Your task to perform on an android device: Open privacy settings Image 0: 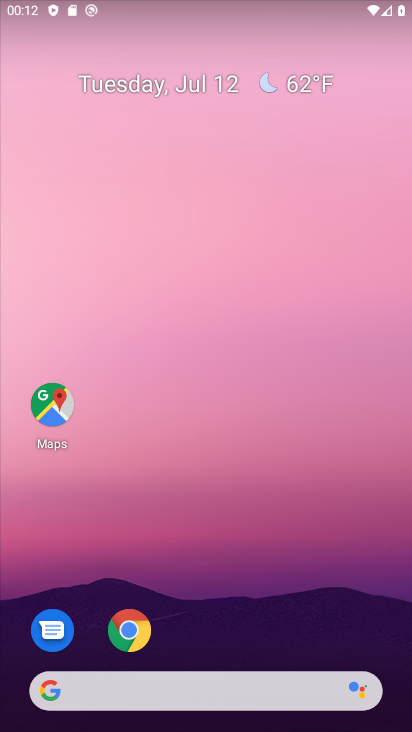
Step 0: drag from (220, 625) to (241, 106)
Your task to perform on an android device: Open privacy settings Image 1: 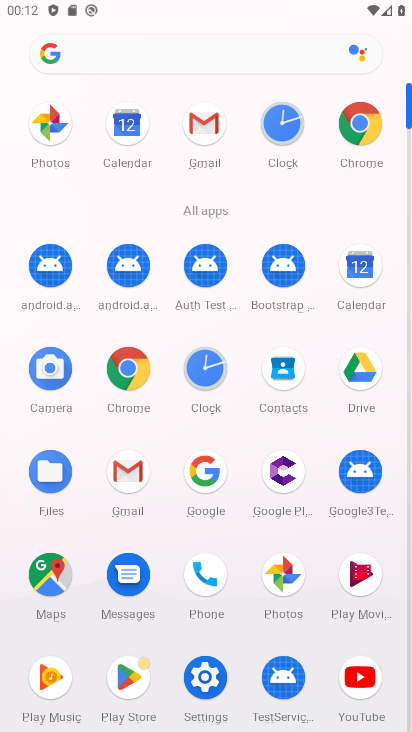
Step 1: click (207, 679)
Your task to perform on an android device: Open privacy settings Image 2: 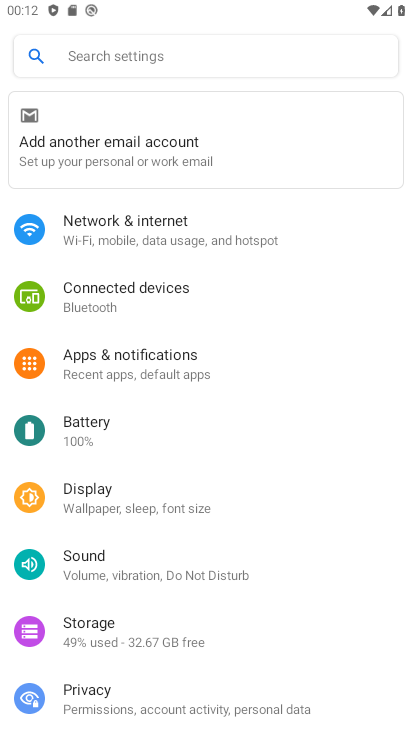
Step 2: click (122, 691)
Your task to perform on an android device: Open privacy settings Image 3: 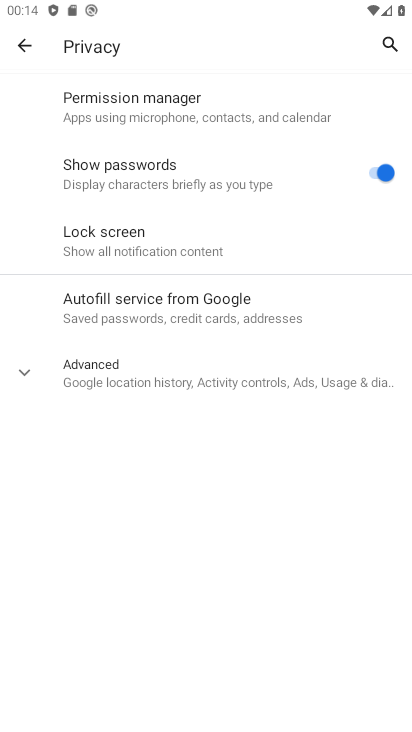
Step 3: task complete